Your task to perform on an android device: Go to Yahoo.com Image 0: 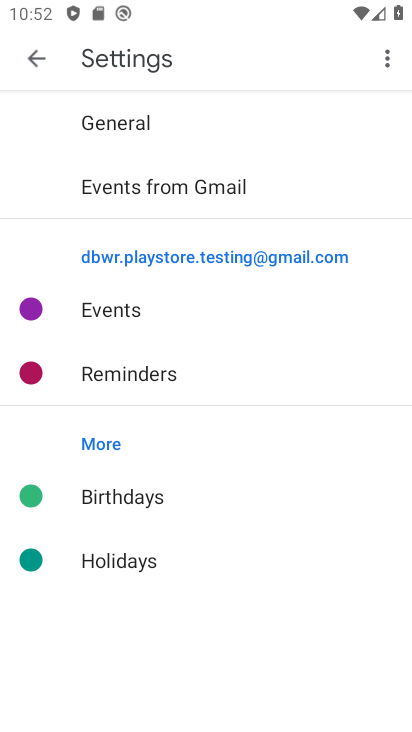
Step 0: press home button
Your task to perform on an android device: Go to Yahoo.com Image 1: 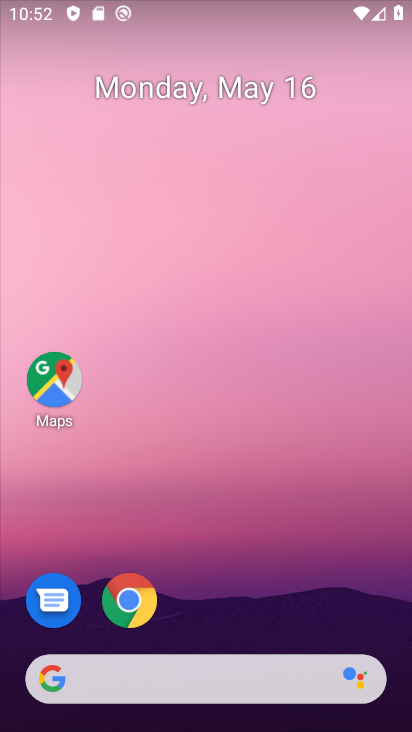
Step 1: click (130, 597)
Your task to perform on an android device: Go to Yahoo.com Image 2: 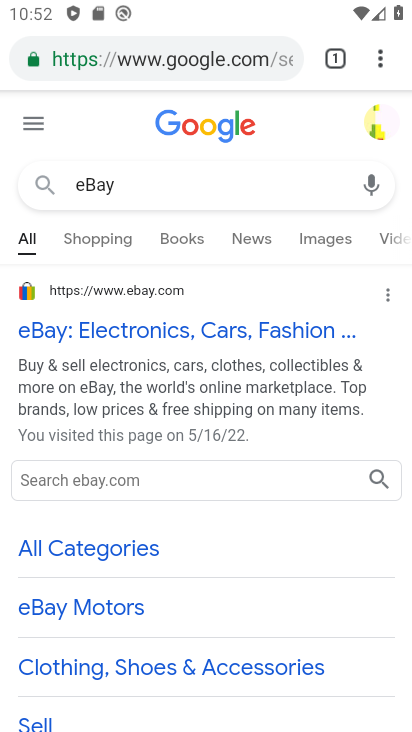
Step 2: click (143, 72)
Your task to perform on an android device: Go to Yahoo.com Image 3: 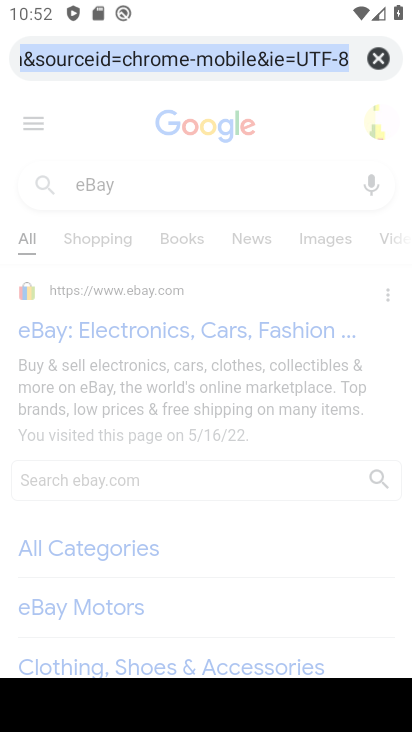
Step 3: type "Yahoo.com"
Your task to perform on an android device: Go to Yahoo.com Image 4: 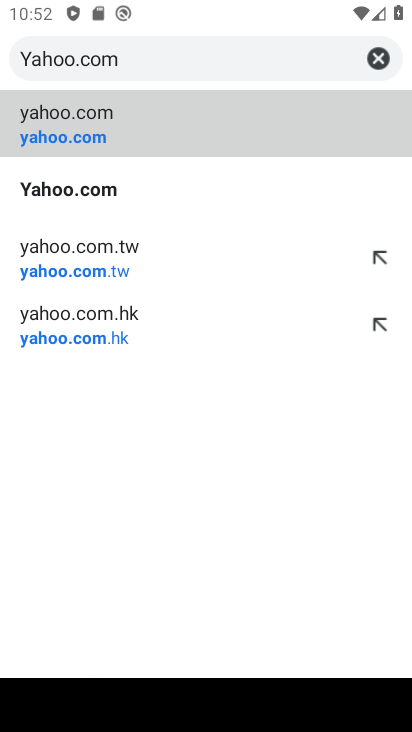
Step 4: click (157, 121)
Your task to perform on an android device: Go to Yahoo.com Image 5: 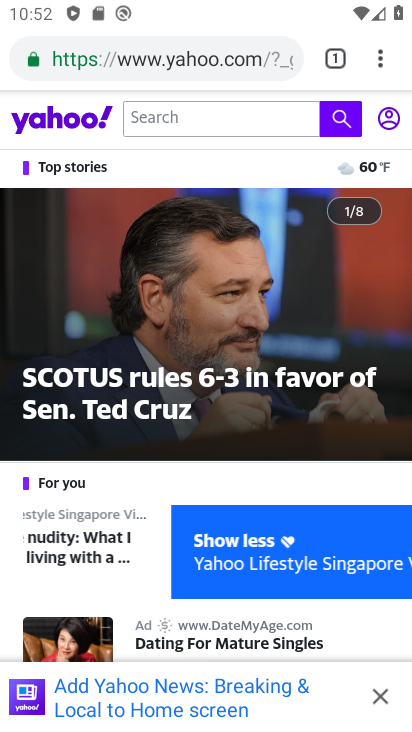
Step 5: task complete